Your task to perform on an android device: turn on the 24-hour format for clock Image 0: 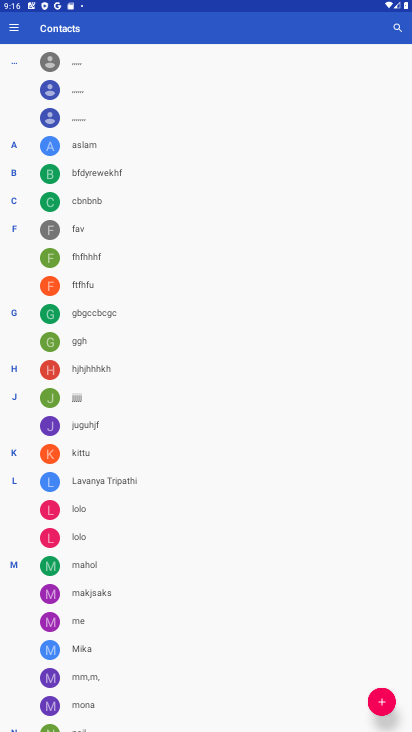
Step 0: task complete